Your task to perform on an android device: open app "Booking.com: Hotels and more" Image 0: 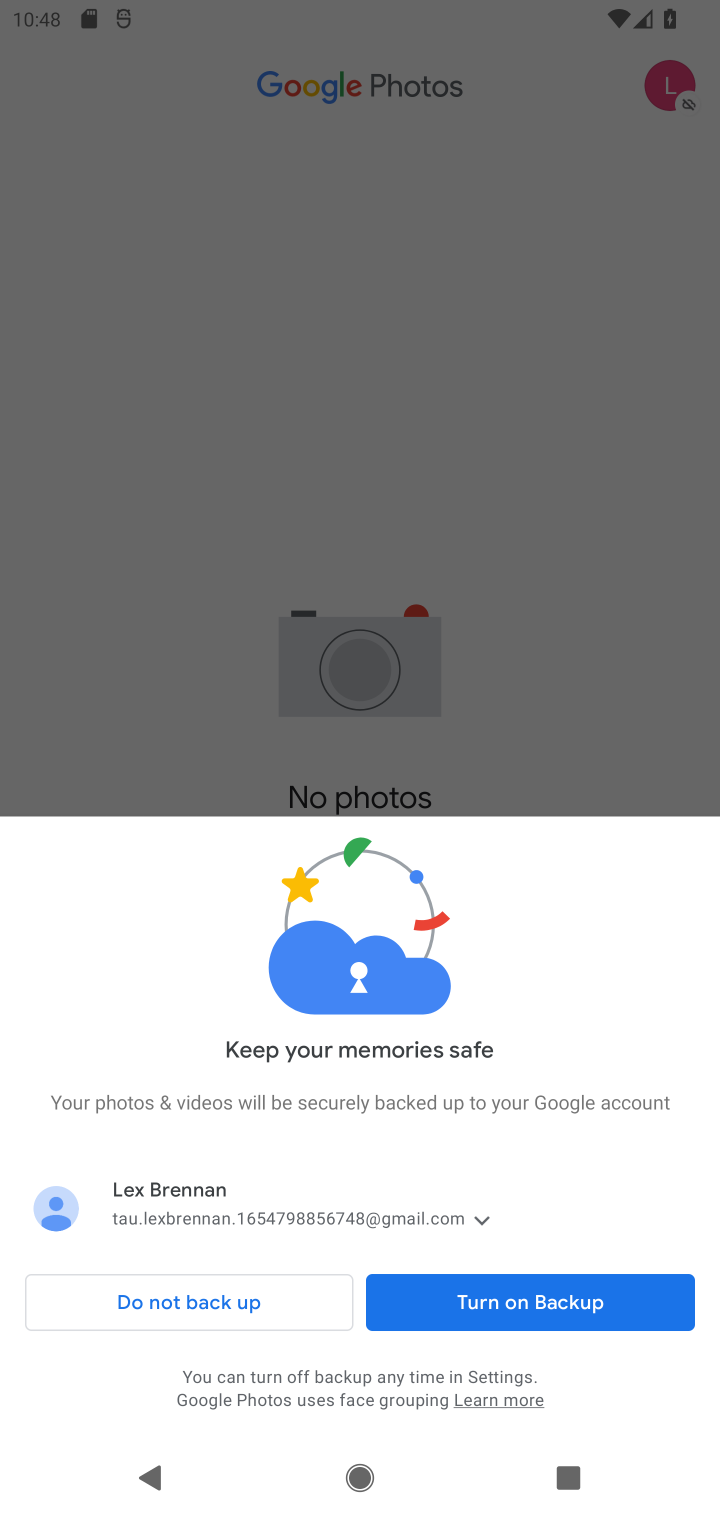
Step 0: press home button
Your task to perform on an android device: open app "Booking.com: Hotels and more" Image 1: 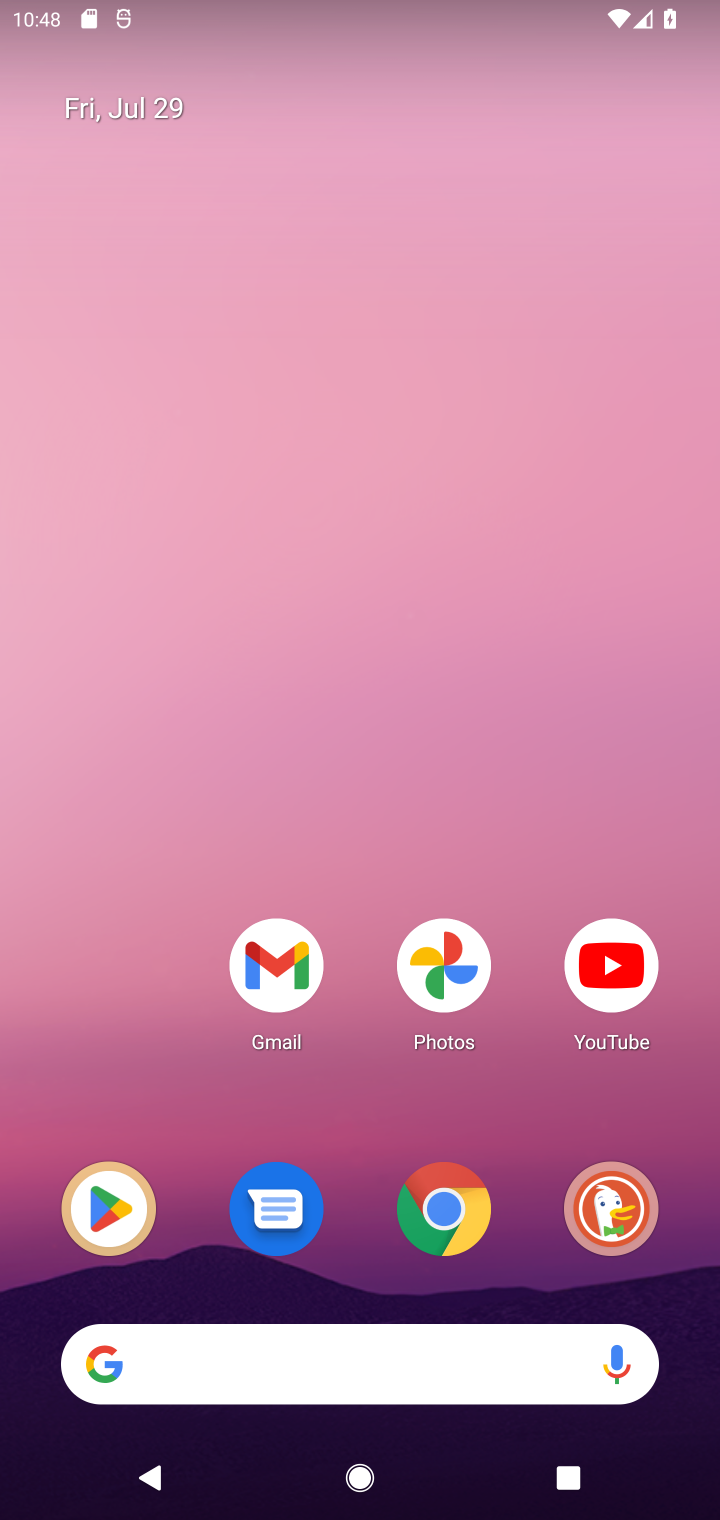
Step 1: drag from (519, 702) to (516, 116)
Your task to perform on an android device: open app "Booking.com: Hotels and more" Image 2: 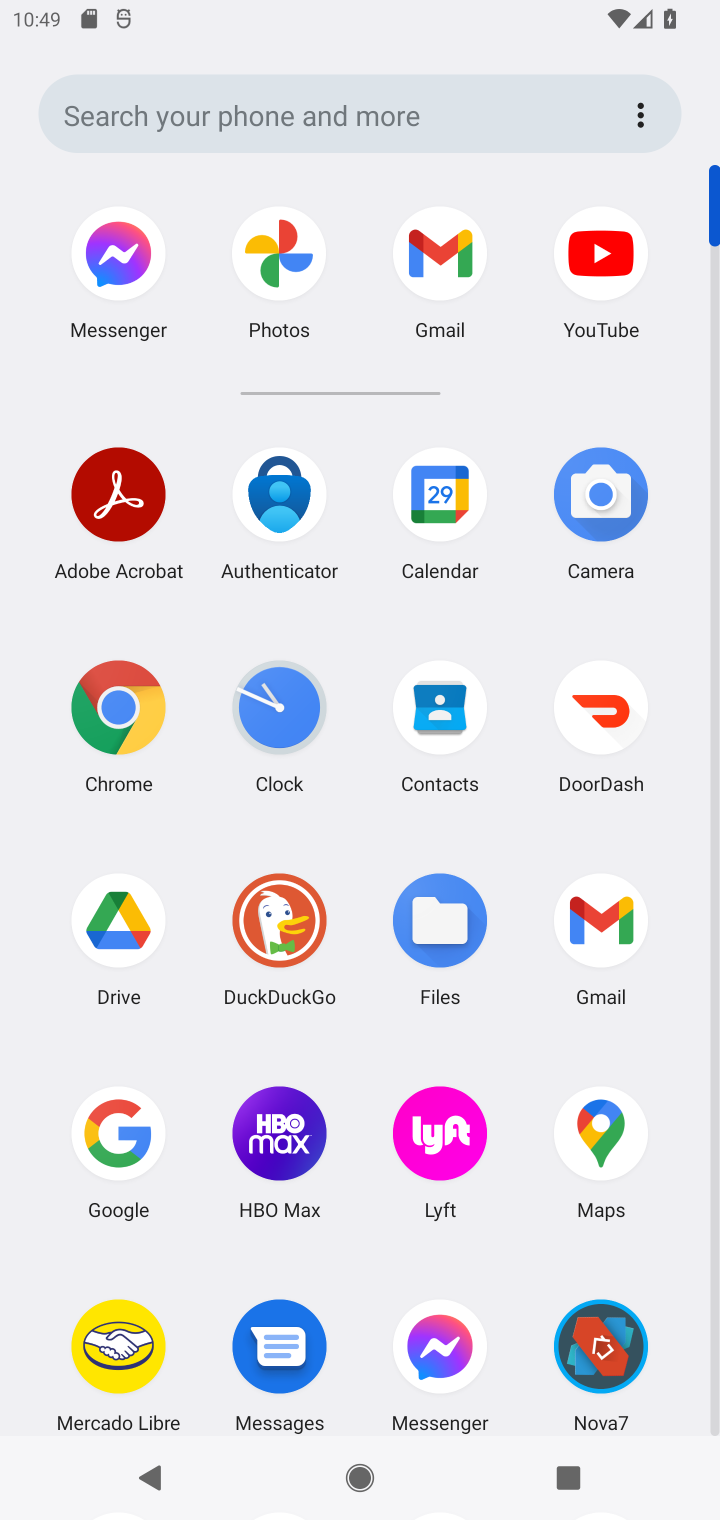
Step 2: drag from (359, 992) to (386, 372)
Your task to perform on an android device: open app "Booking.com: Hotels and more" Image 3: 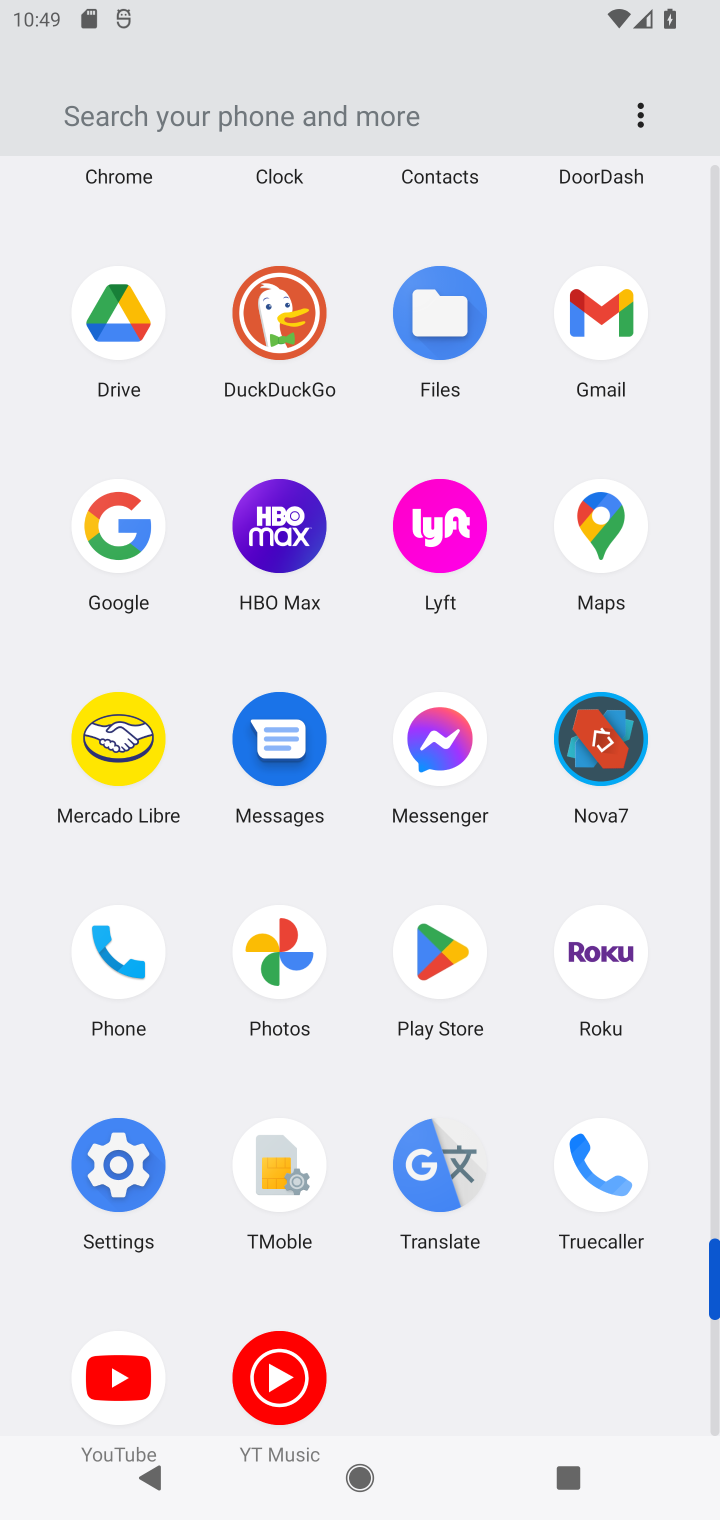
Step 3: click (461, 934)
Your task to perform on an android device: open app "Booking.com: Hotels and more" Image 4: 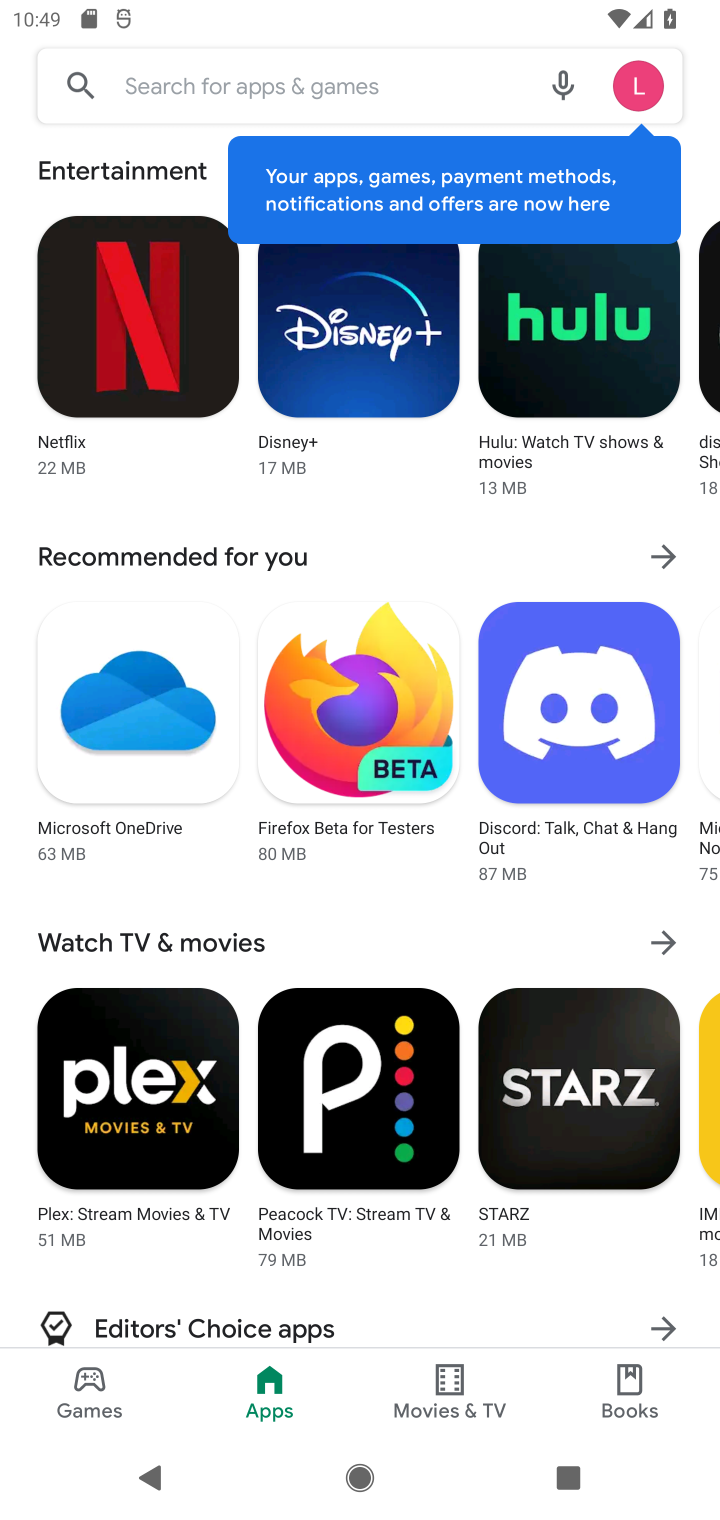
Step 4: click (247, 86)
Your task to perform on an android device: open app "Booking.com: Hotels and more" Image 5: 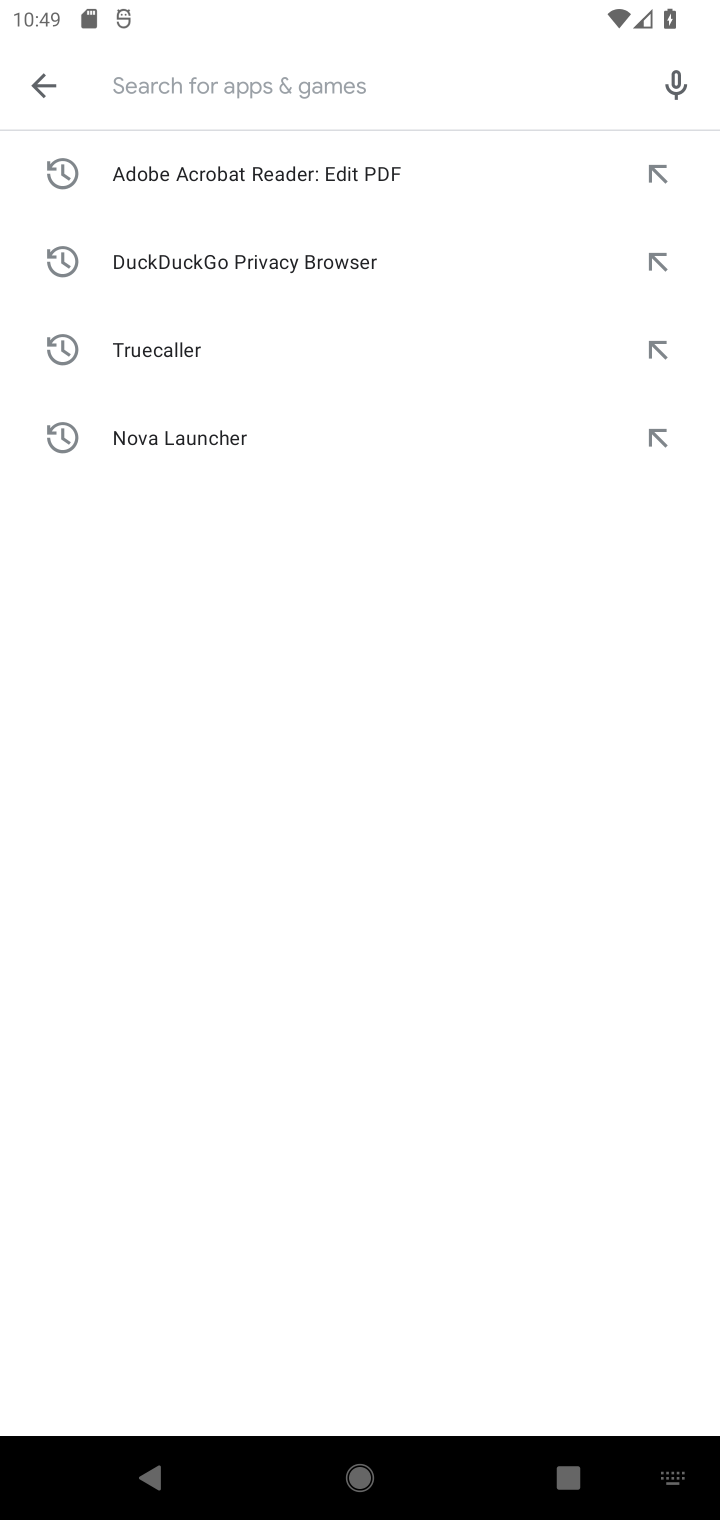
Step 5: type "Booking.com: Hotels and more"
Your task to perform on an android device: open app "Booking.com: Hotels and more" Image 6: 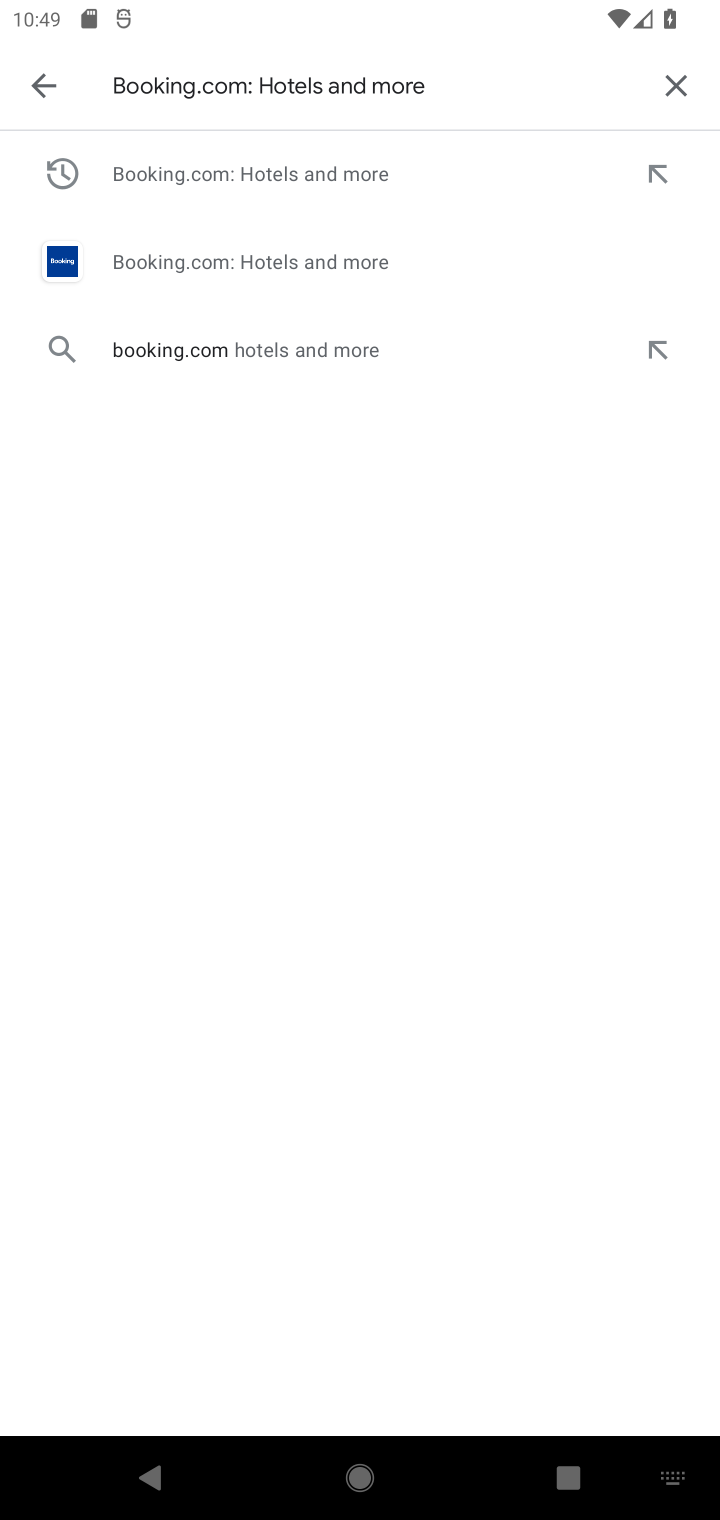
Step 6: press enter
Your task to perform on an android device: open app "Booking.com: Hotels and more" Image 7: 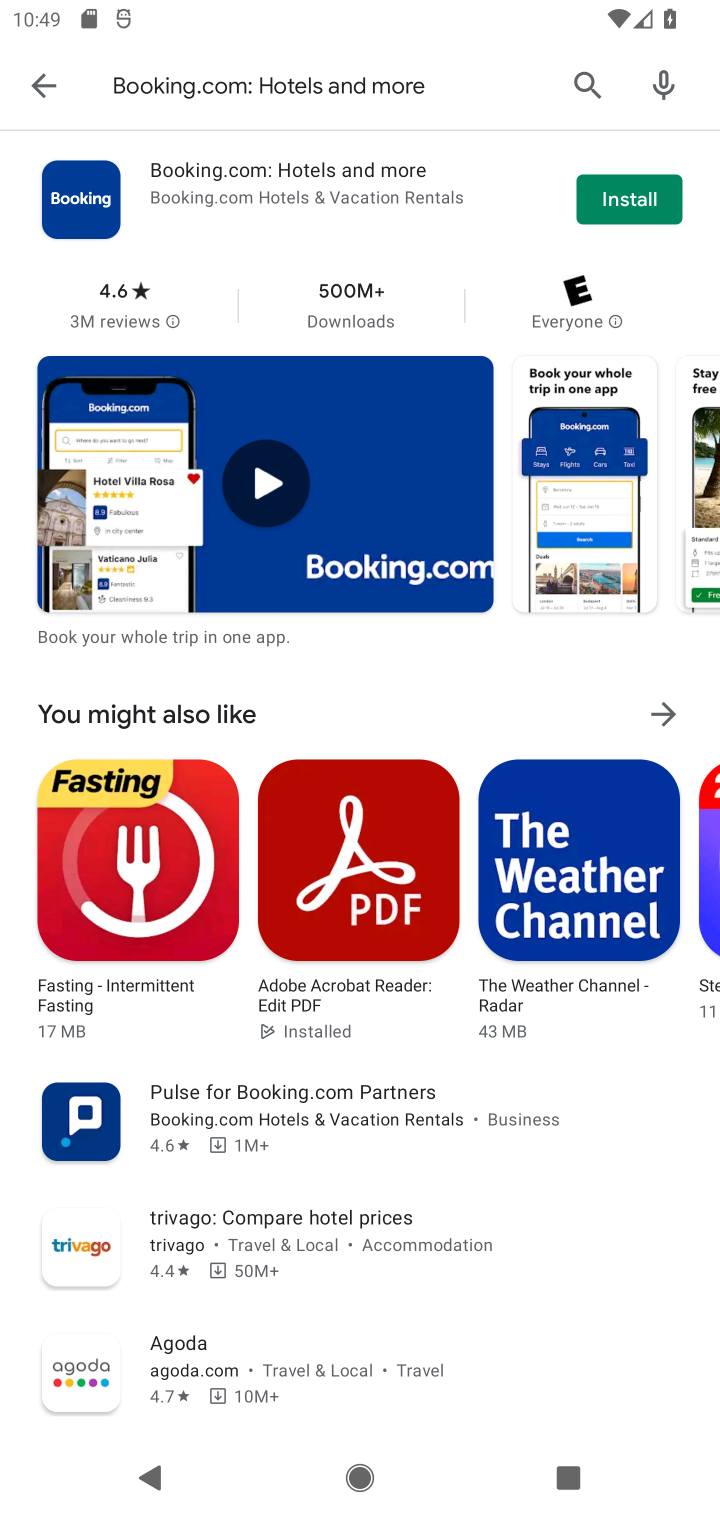
Step 7: task complete